Your task to perform on an android device: turn on showing notifications on the lock screen Image 0: 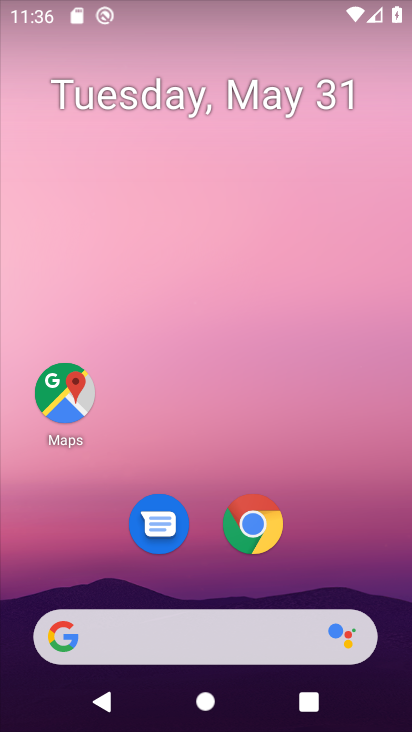
Step 0: drag from (331, 463) to (347, 13)
Your task to perform on an android device: turn on showing notifications on the lock screen Image 1: 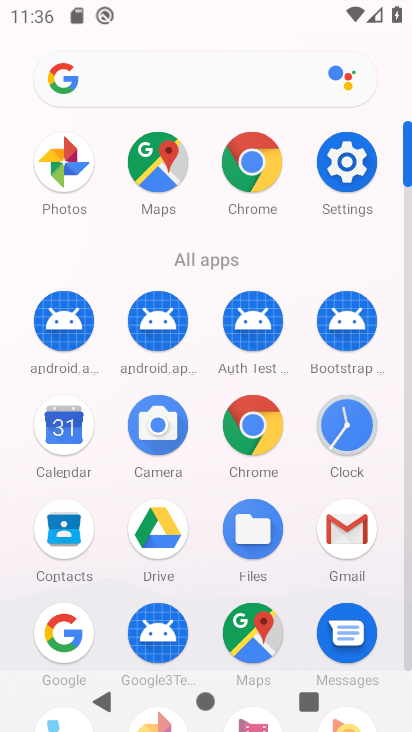
Step 1: click (341, 160)
Your task to perform on an android device: turn on showing notifications on the lock screen Image 2: 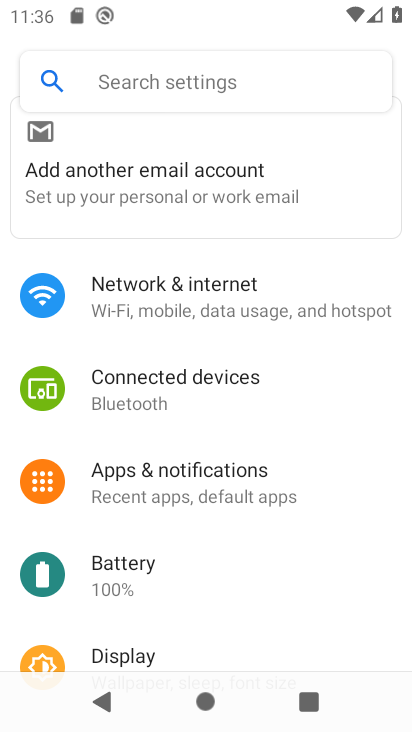
Step 2: click (256, 466)
Your task to perform on an android device: turn on showing notifications on the lock screen Image 3: 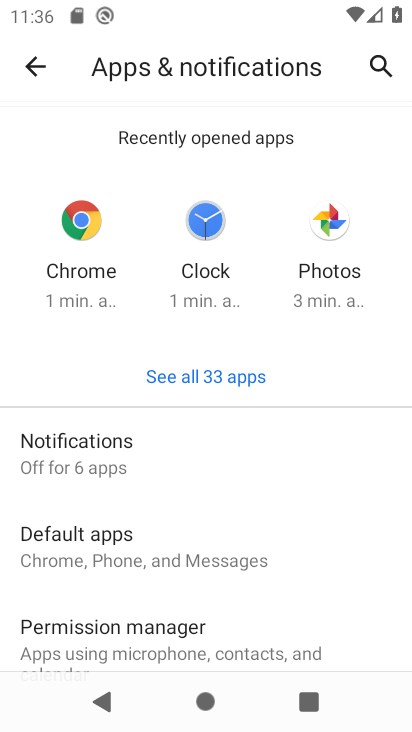
Step 3: click (235, 455)
Your task to perform on an android device: turn on showing notifications on the lock screen Image 4: 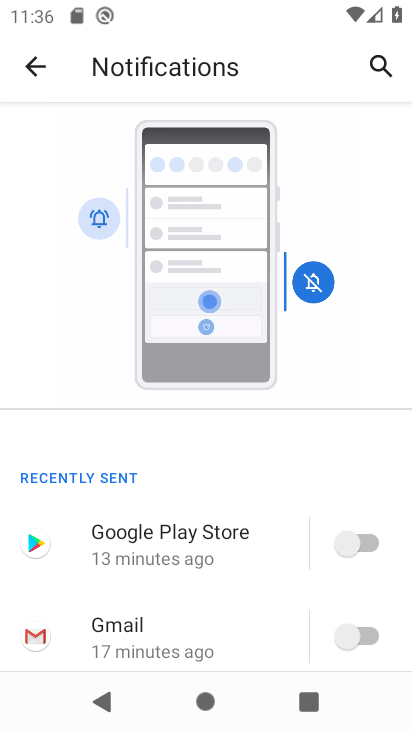
Step 4: task complete